Your task to perform on an android device: snooze an email in the gmail app Image 0: 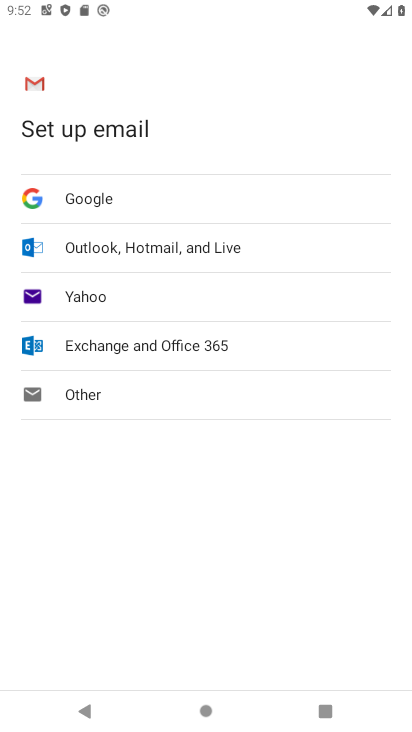
Step 0: press home button
Your task to perform on an android device: snooze an email in the gmail app Image 1: 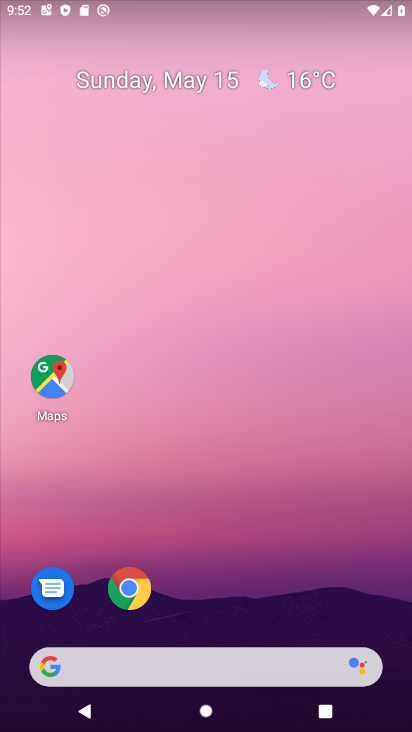
Step 1: drag from (204, 508) to (306, 24)
Your task to perform on an android device: snooze an email in the gmail app Image 2: 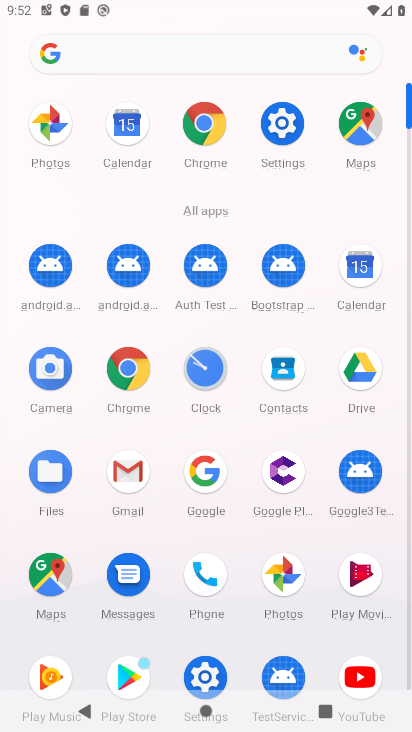
Step 2: click (135, 489)
Your task to perform on an android device: snooze an email in the gmail app Image 3: 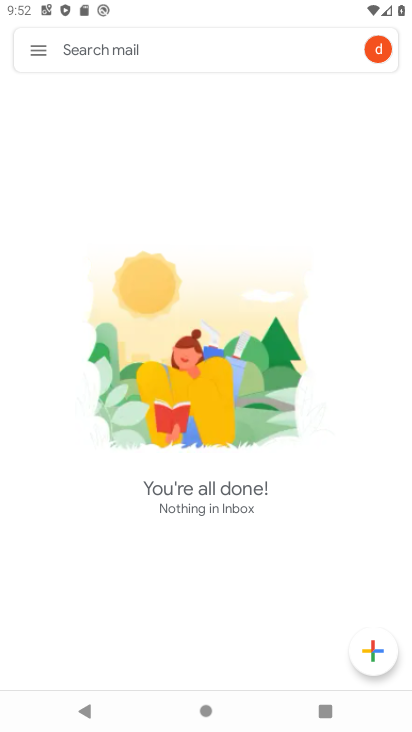
Step 3: task complete